Your task to perform on an android device: Open Reddit.com Image 0: 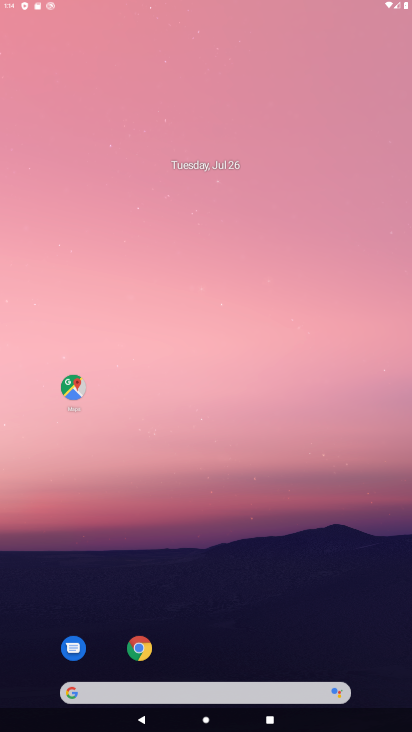
Step 0: press home button
Your task to perform on an android device: Open Reddit.com Image 1: 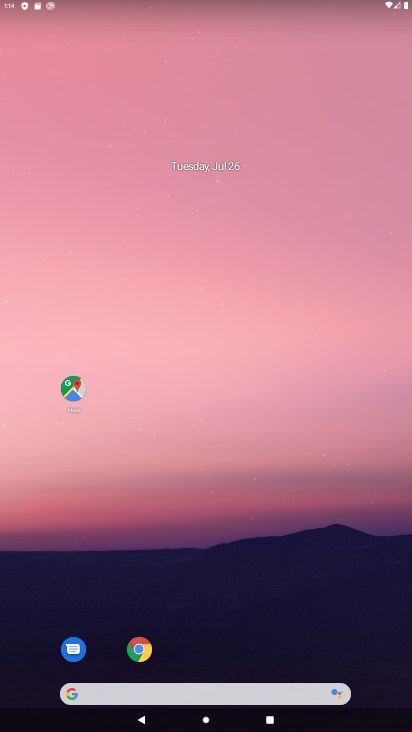
Step 1: drag from (205, 666) to (222, 18)
Your task to perform on an android device: Open Reddit.com Image 2: 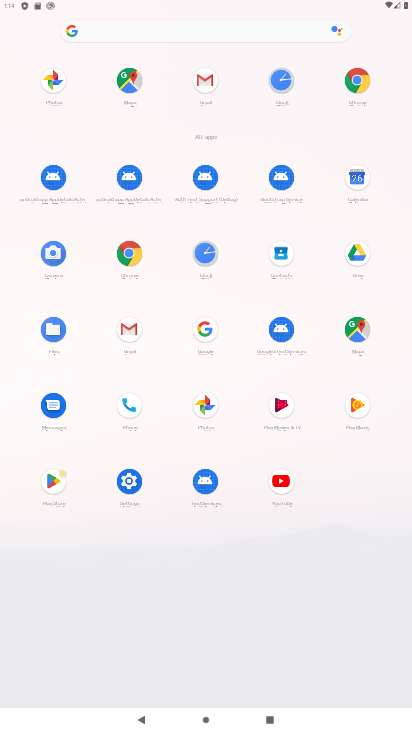
Step 2: click (128, 252)
Your task to perform on an android device: Open Reddit.com Image 3: 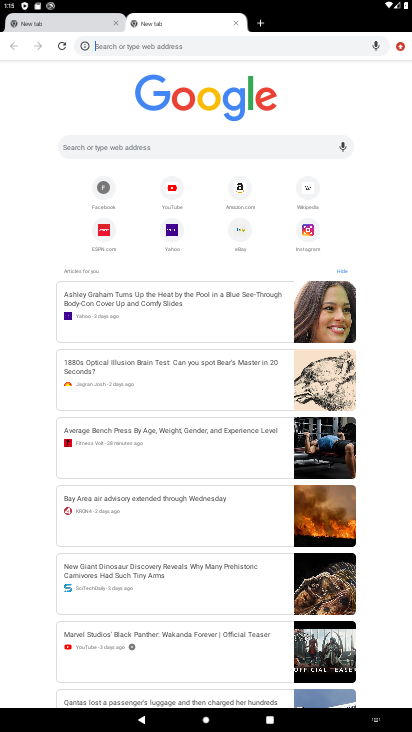
Step 3: click (152, 136)
Your task to perform on an android device: Open Reddit.com Image 4: 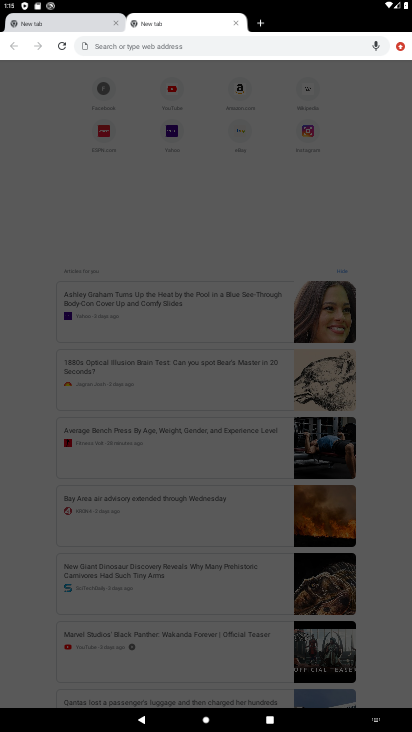
Step 4: type "reddit.com"
Your task to perform on an android device: Open Reddit.com Image 5: 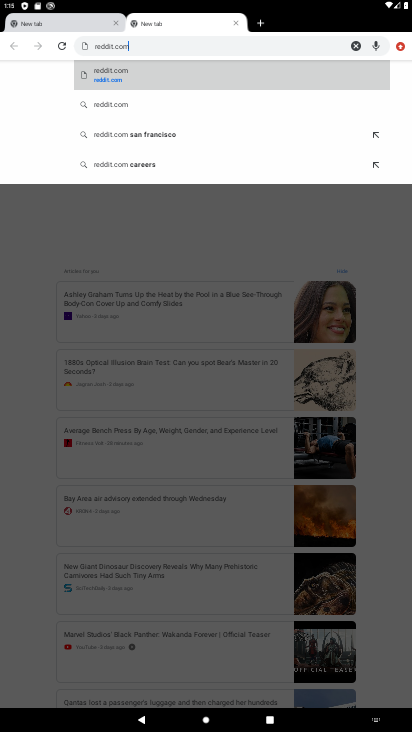
Step 5: click (129, 71)
Your task to perform on an android device: Open Reddit.com Image 6: 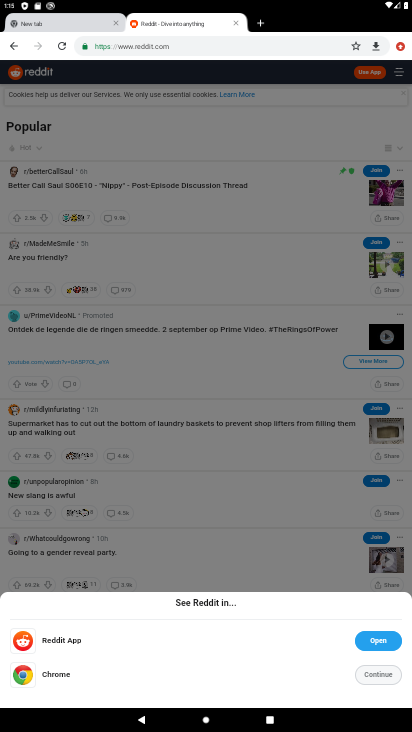
Step 6: click (374, 675)
Your task to perform on an android device: Open Reddit.com Image 7: 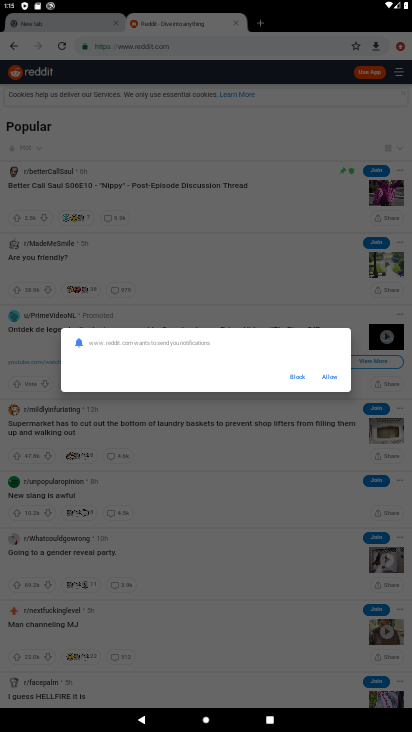
Step 7: click (328, 379)
Your task to perform on an android device: Open Reddit.com Image 8: 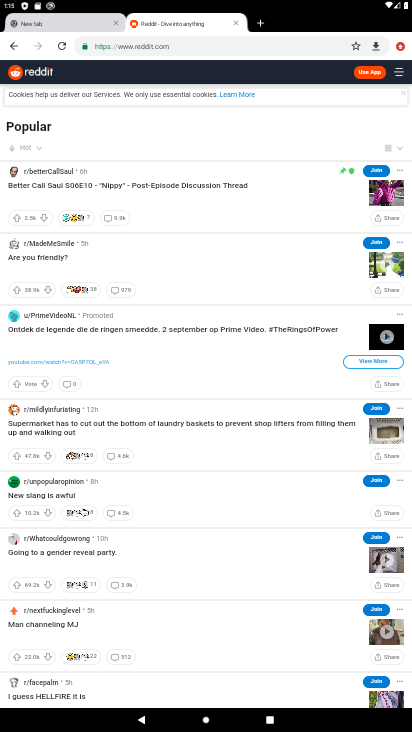
Step 8: task complete